Your task to perform on an android device: What's the news in Thailand? Image 0: 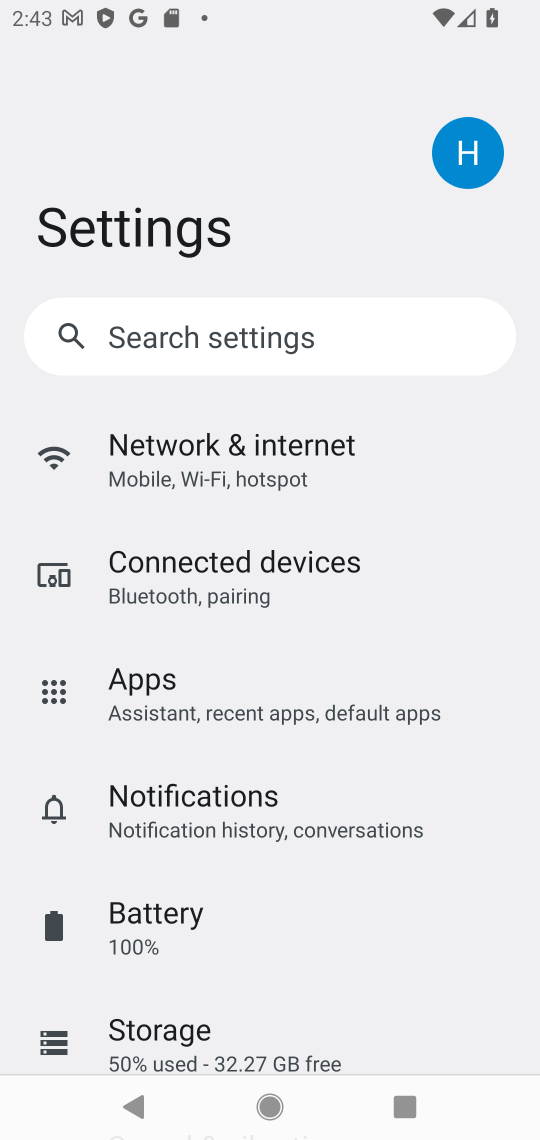
Step 0: press home button
Your task to perform on an android device: What's the news in Thailand? Image 1: 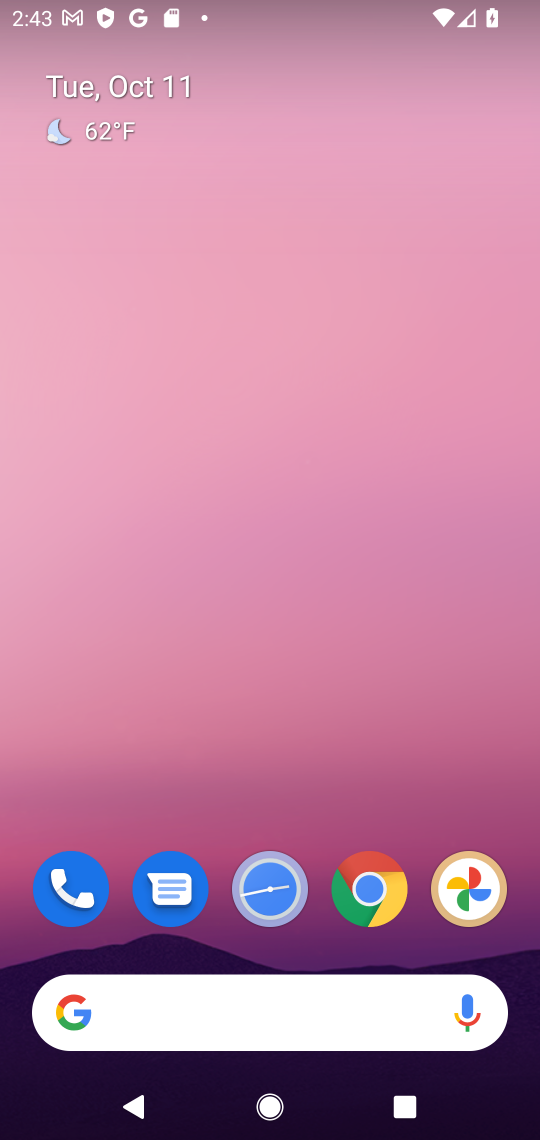
Step 1: drag from (233, 932) to (272, 435)
Your task to perform on an android device: What's the news in Thailand? Image 2: 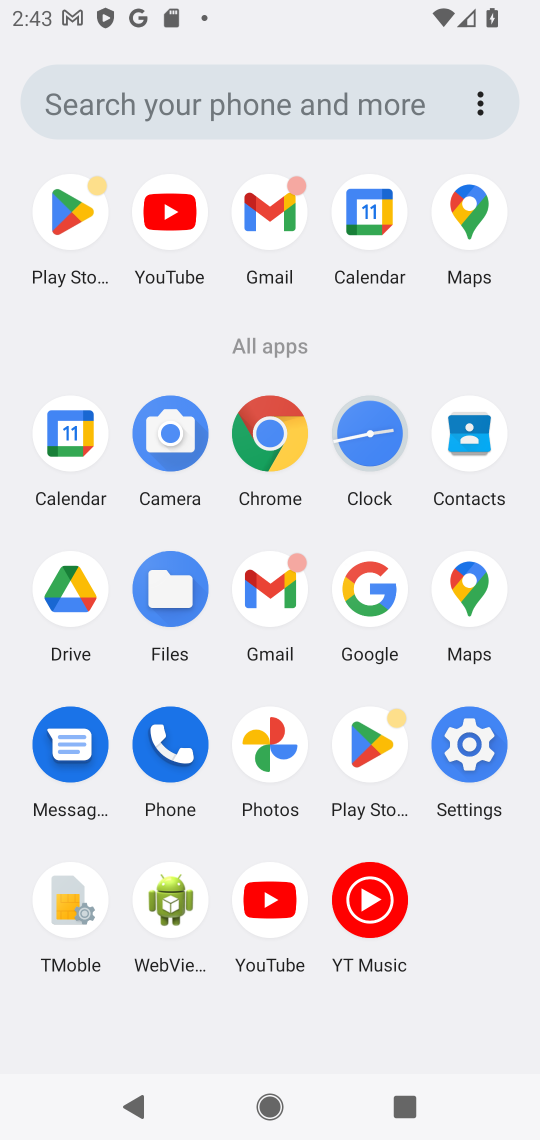
Step 2: click (248, 575)
Your task to perform on an android device: What's the news in Thailand? Image 3: 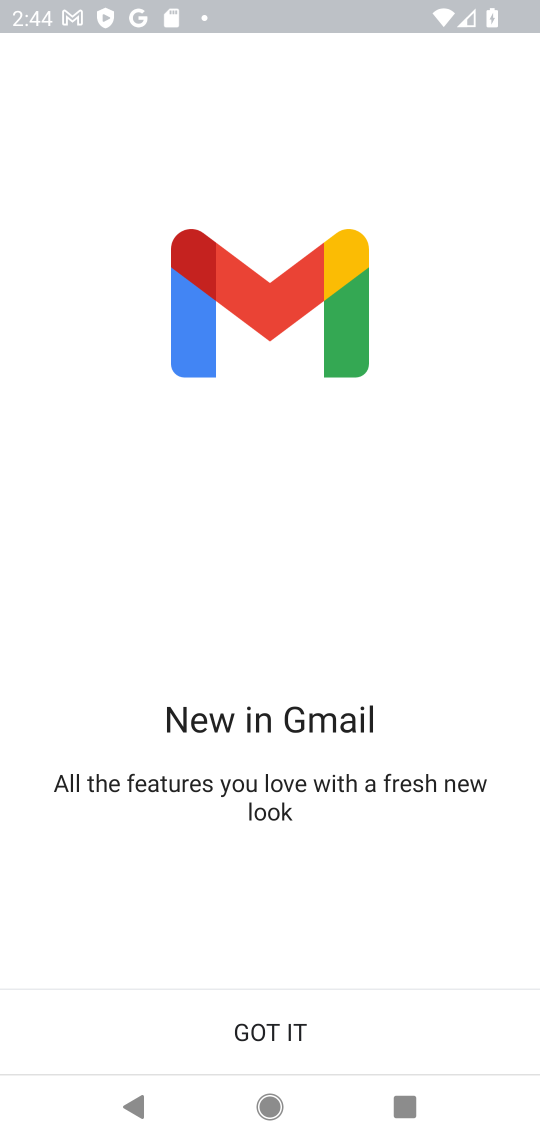
Step 3: press home button
Your task to perform on an android device: What's the news in Thailand? Image 4: 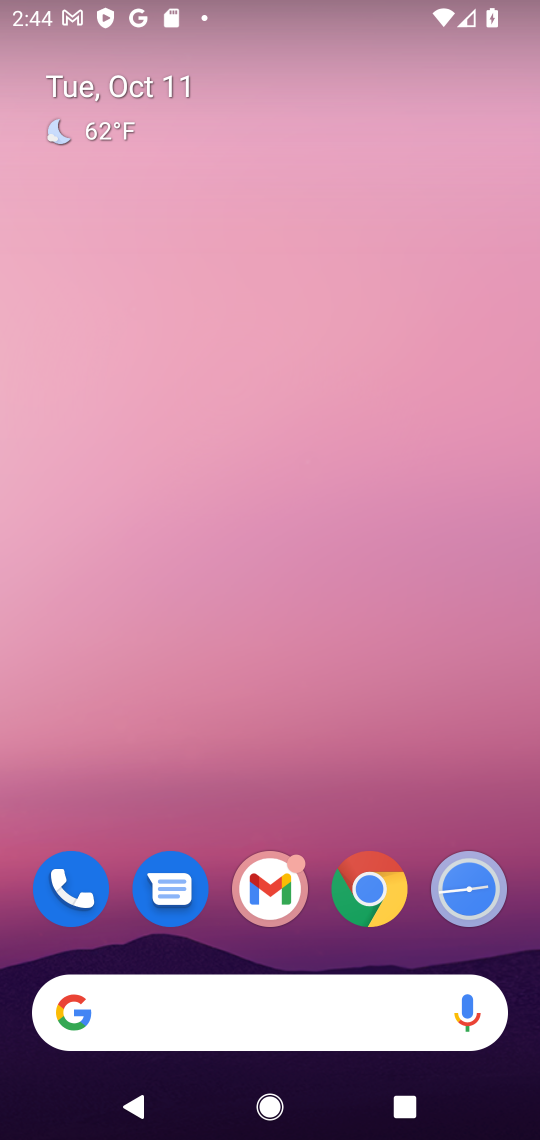
Step 4: drag from (185, 944) to (240, 215)
Your task to perform on an android device: What's the news in Thailand? Image 5: 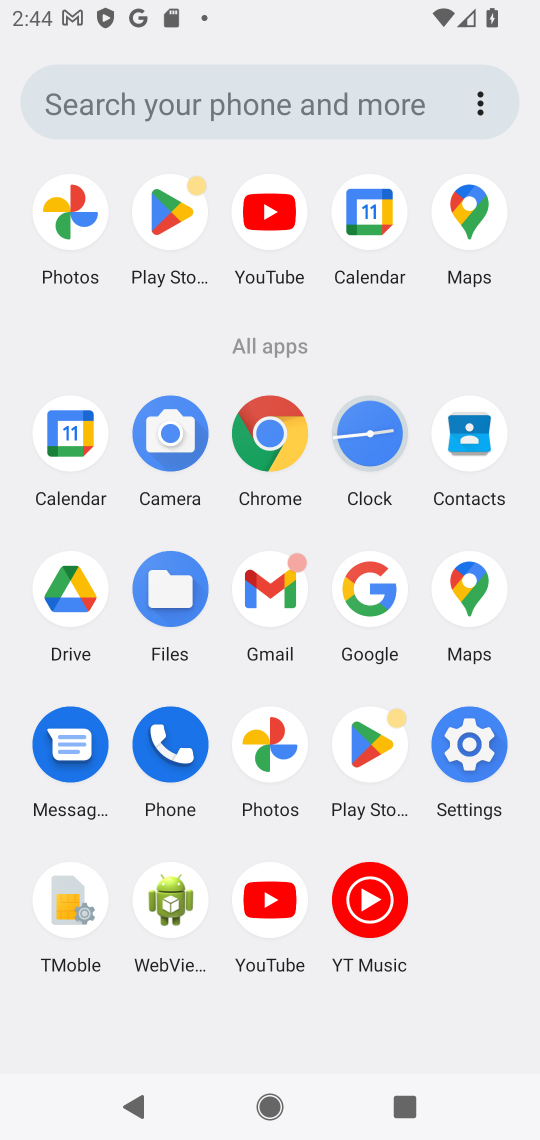
Step 5: click (368, 590)
Your task to perform on an android device: What's the news in Thailand? Image 6: 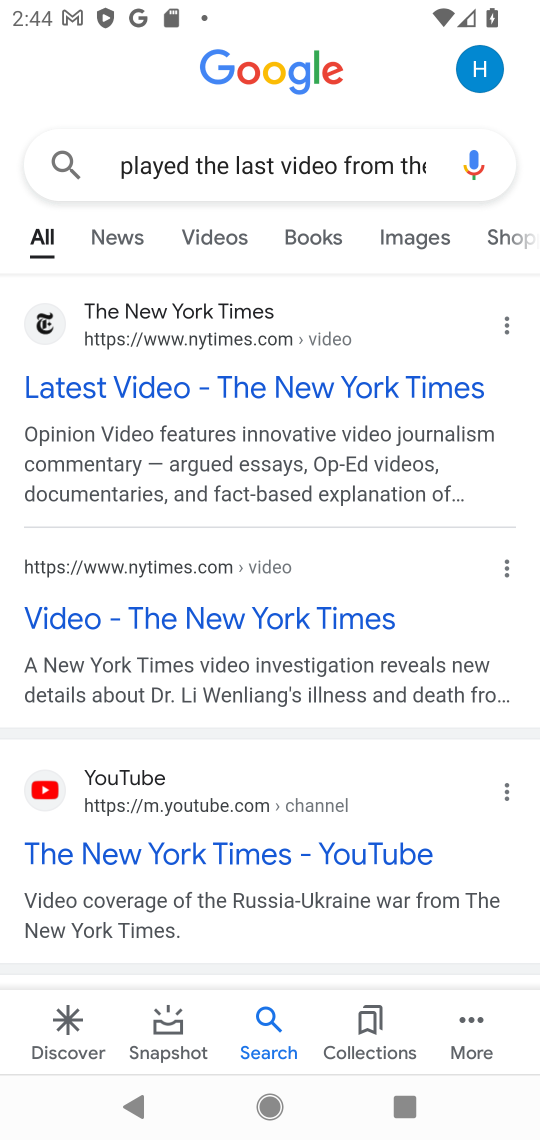
Step 6: click (265, 137)
Your task to perform on an android device: What's the news in Thailand? Image 7: 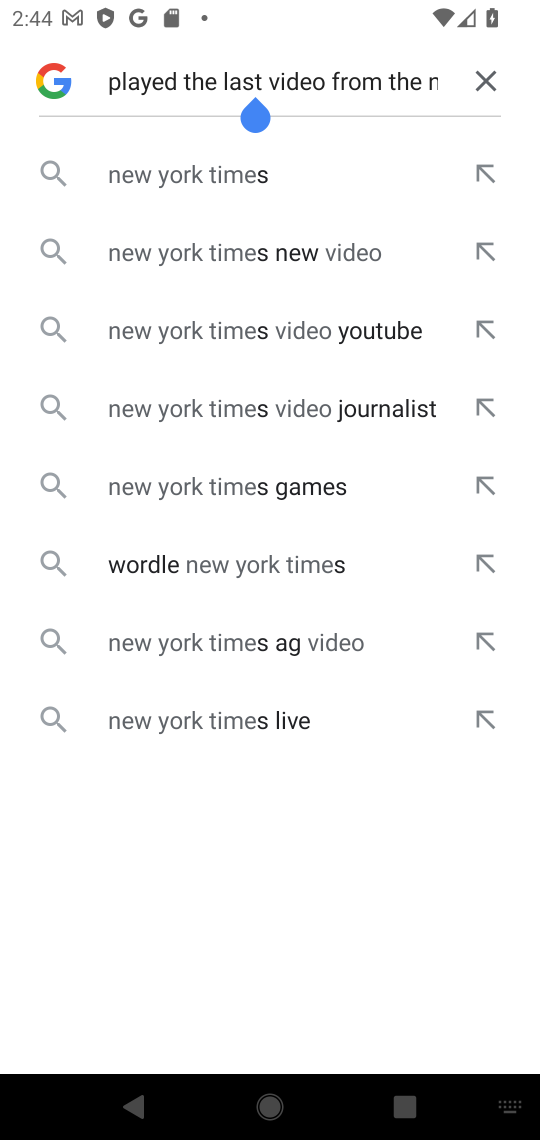
Step 7: click (493, 60)
Your task to perform on an android device: What's the news in Thailand? Image 8: 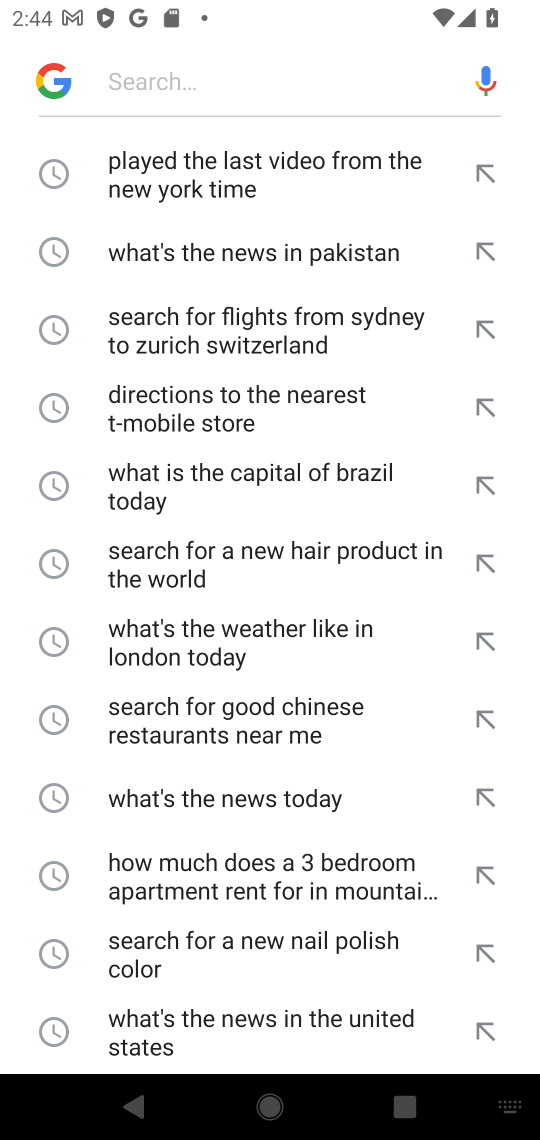
Step 8: click (225, 86)
Your task to perform on an android device: What's the news in Thailand? Image 9: 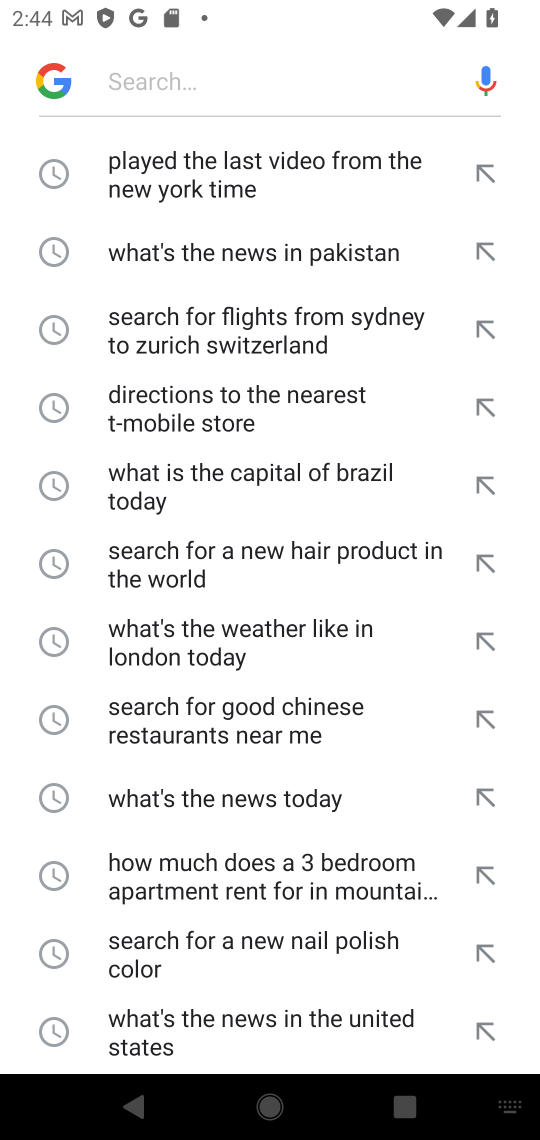
Step 9: type "What's the news in Thailand? "
Your task to perform on an android device: What's the news in Thailand? Image 10: 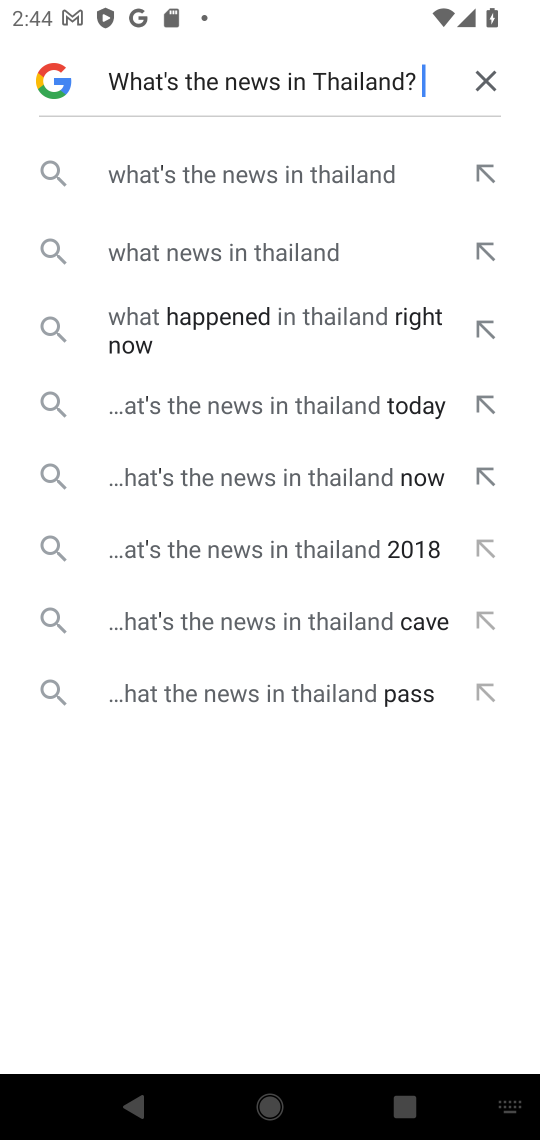
Step 10: click (274, 172)
Your task to perform on an android device: What's the news in Thailand? Image 11: 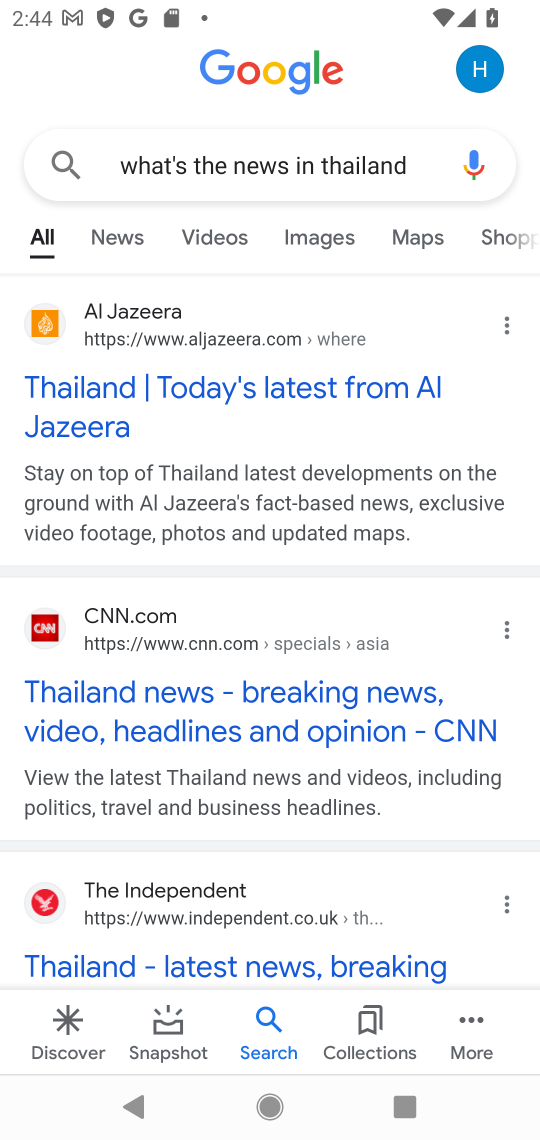
Step 11: click (44, 386)
Your task to perform on an android device: What's the news in Thailand? Image 12: 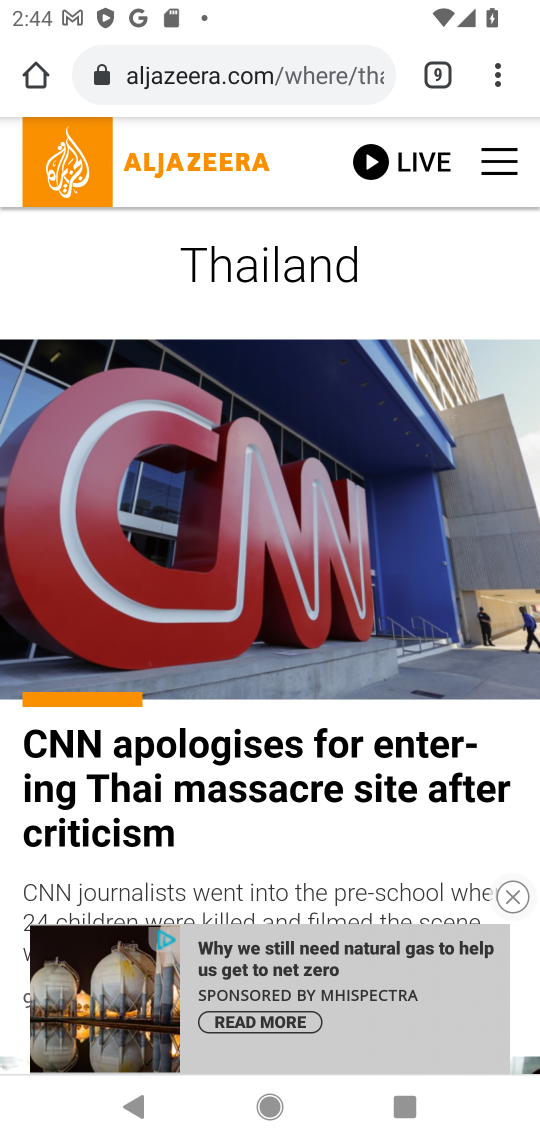
Step 12: task complete